Your task to perform on an android device: set default search engine in the chrome app Image 0: 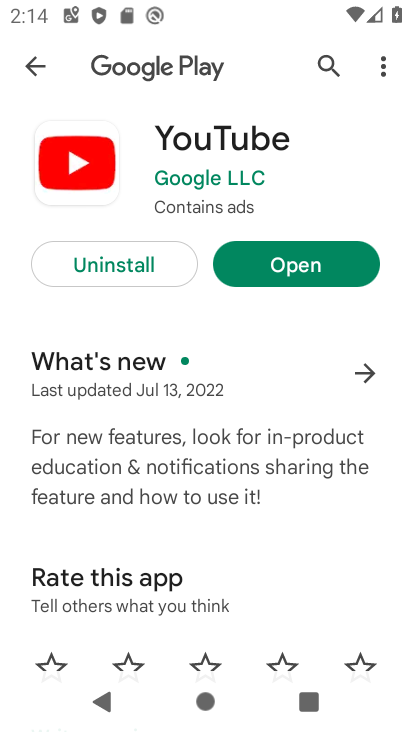
Step 0: press home button
Your task to perform on an android device: set default search engine in the chrome app Image 1: 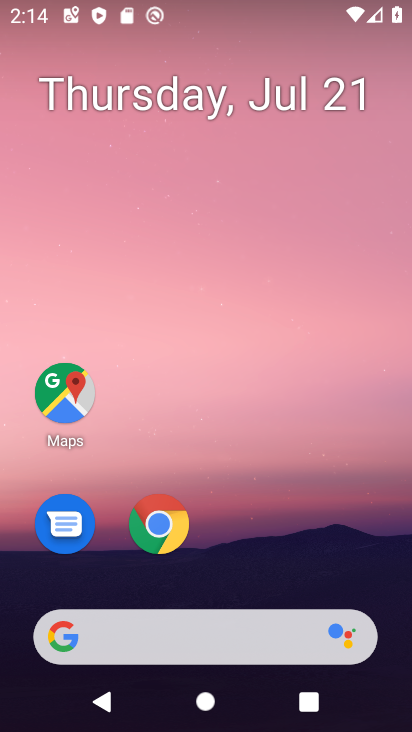
Step 1: click (176, 528)
Your task to perform on an android device: set default search engine in the chrome app Image 2: 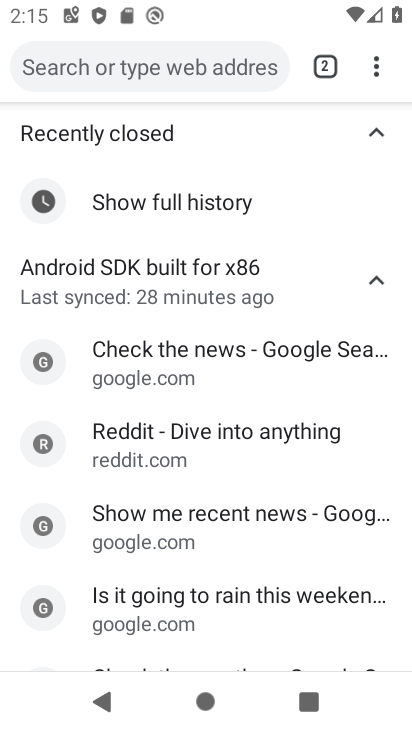
Step 2: click (372, 66)
Your task to perform on an android device: set default search engine in the chrome app Image 3: 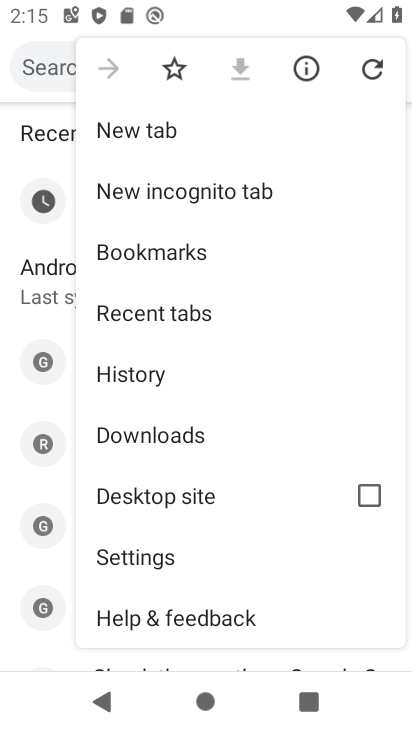
Step 3: click (160, 558)
Your task to perform on an android device: set default search engine in the chrome app Image 4: 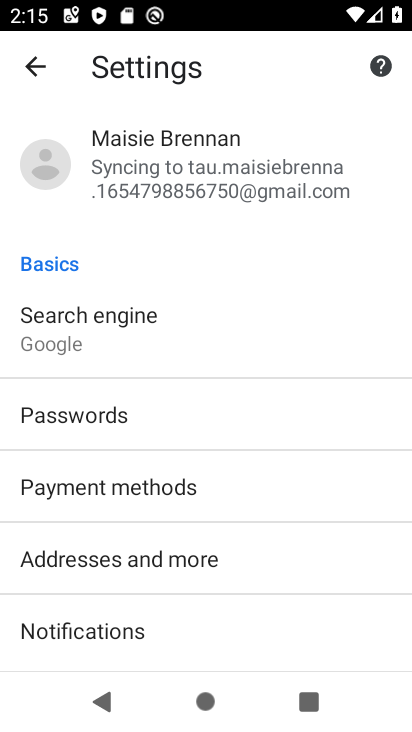
Step 4: click (106, 330)
Your task to perform on an android device: set default search engine in the chrome app Image 5: 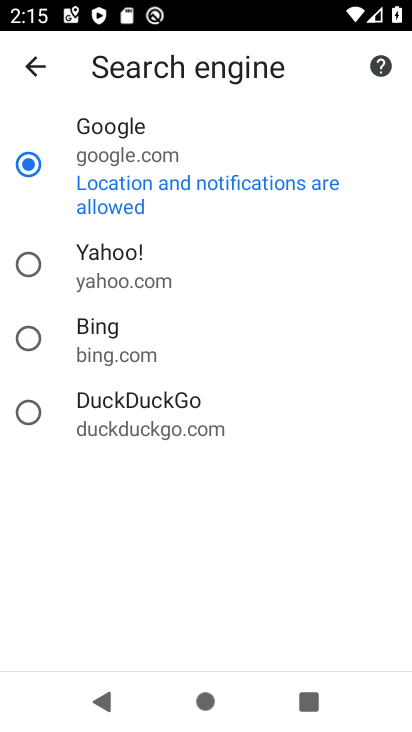
Step 5: task complete